Your task to perform on an android device: turn off translation in the chrome app Image 0: 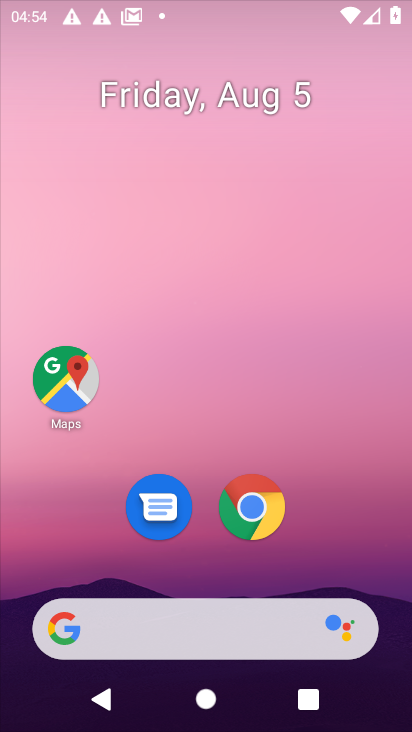
Step 0: drag from (202, 614) to (174, 307)
Your task to perform on an android device: turn off translation in the chrome app Image 1: 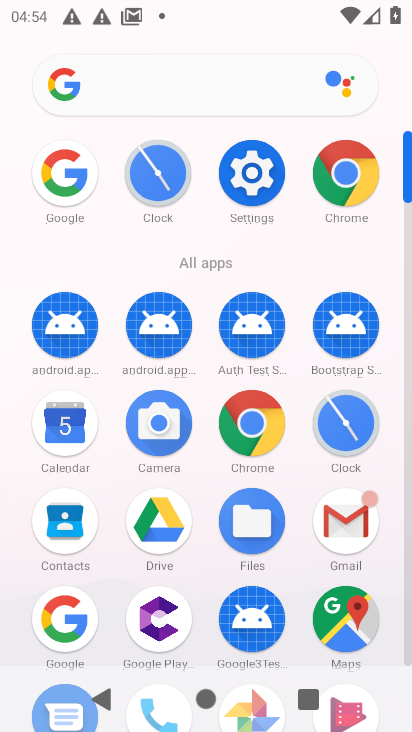
Step 1: click (257, 438)
Your task to perform on an android device: turn off translation in the chrome app Image 2: 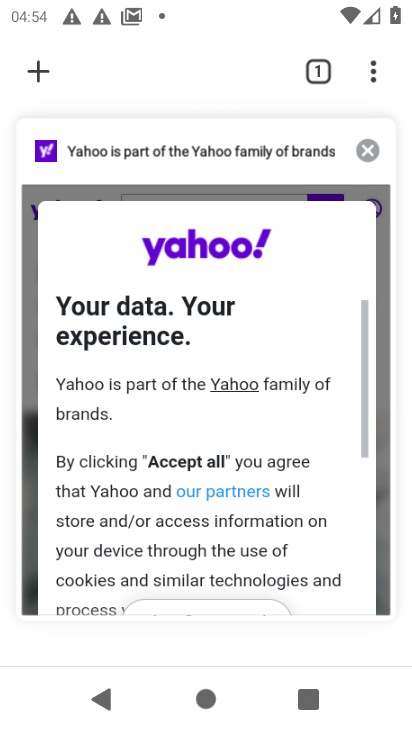
Step 2: click (364, 78)
Your task to perform on an android device: turn off translation in the chrome app Image 3: 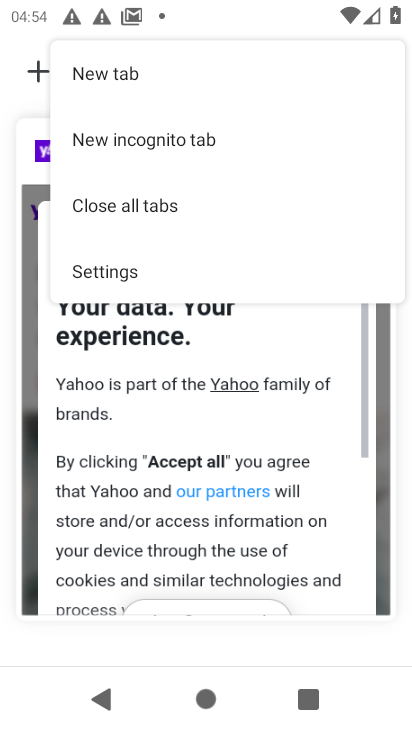
Step 3: click (90, 271)
Your task to perform on an android device: turn off translation in the chrome app Image 4: 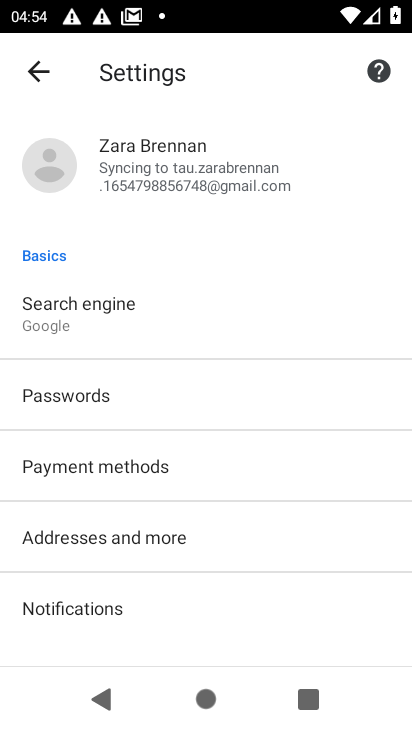
Step 4: drag from (78, 600) to (62, 280)
Your task to perform on an android device: turn off translation in the chrome app Image 5: 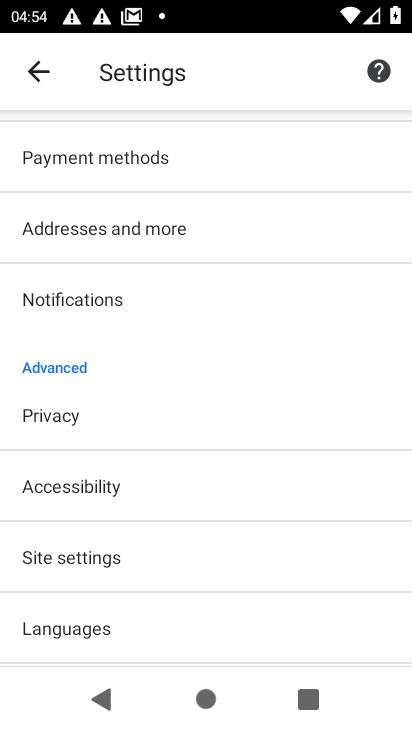
Step 5: click (98, 628)
Your task to perform on an android device: turn off translation in the chrome app Image 6: 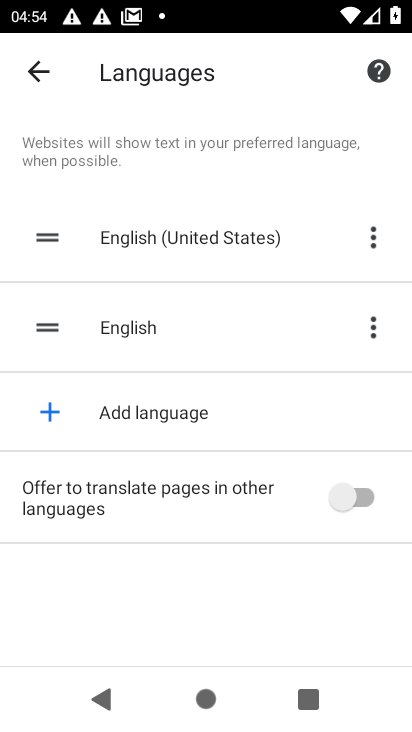
Step 6: task complete